Your task to perform on an android device: Search for a new blush on Sephora Image 0: 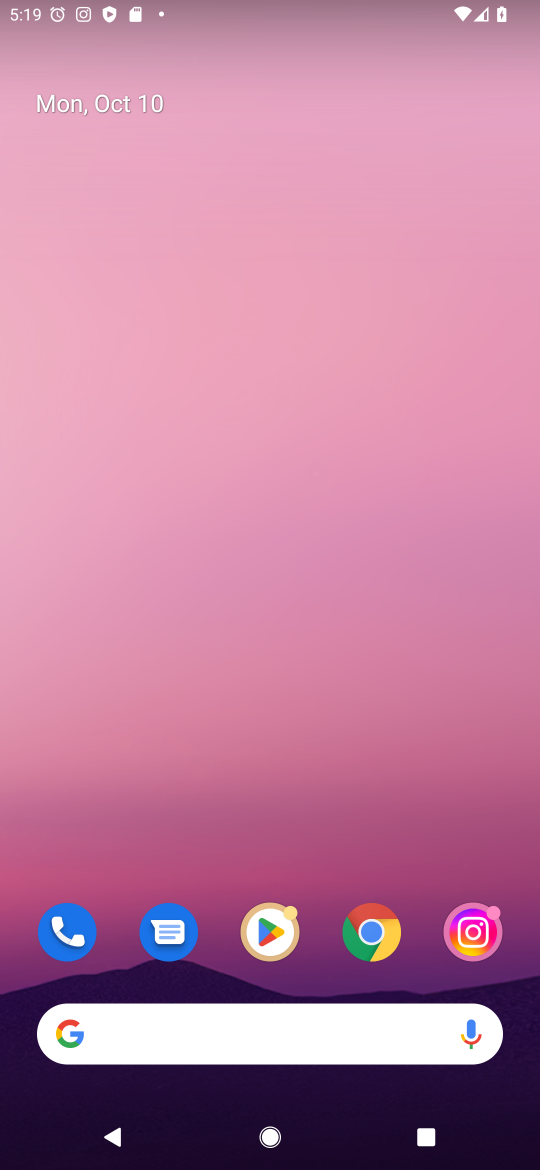
Step 0: click (251, 1032)
Your task to perform on an android device: Search for a new blush on Sephora Image 1: 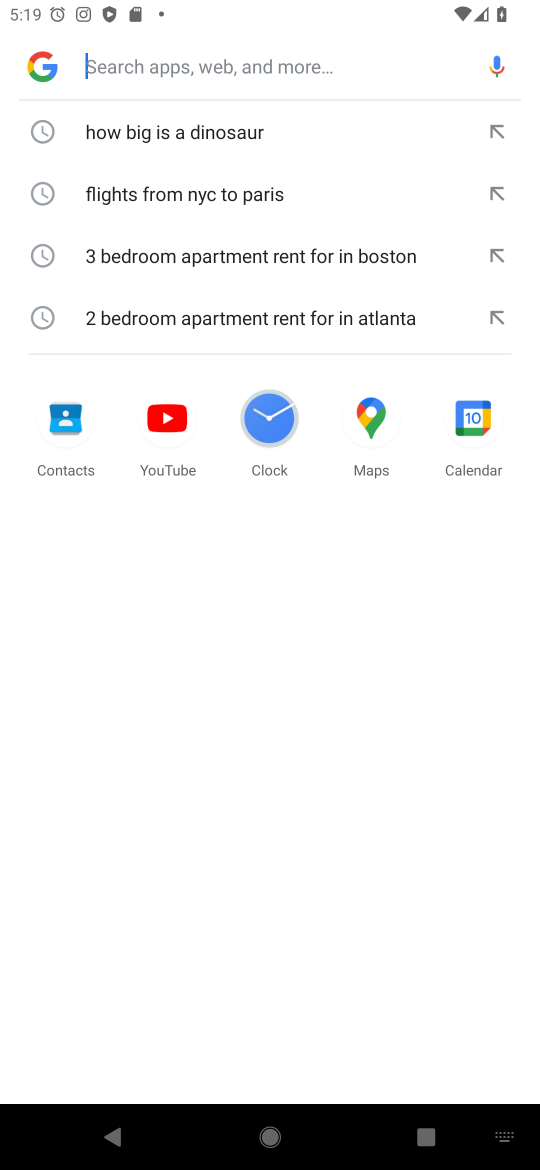
Step 1: type "new blush on Sephora"
Your task to perform on an android device: Search for a new blush on Sephora Image 2: 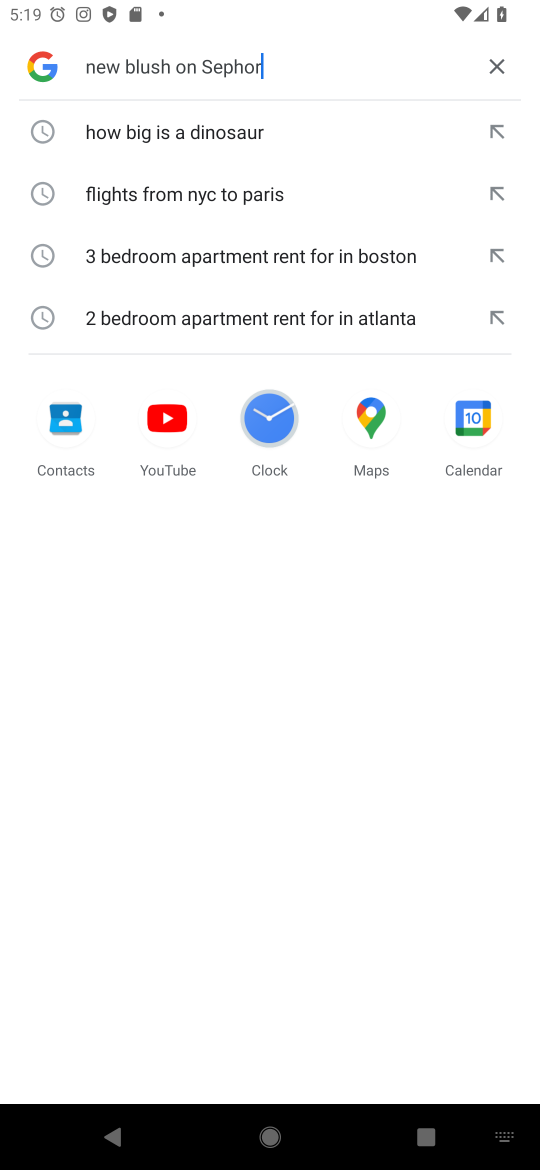
Step 2: press enter
Your task to perform on an android device: Search for a new blush on Sephora Image 3: 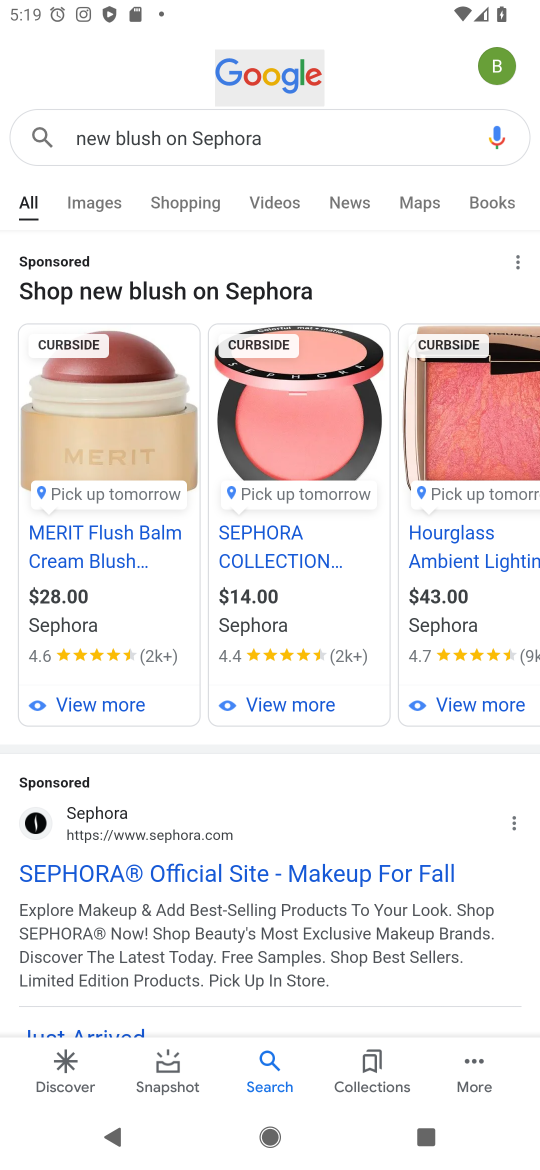
Step 3: task complete